Your task to perform on an android device: Go to notification settings Image 0: 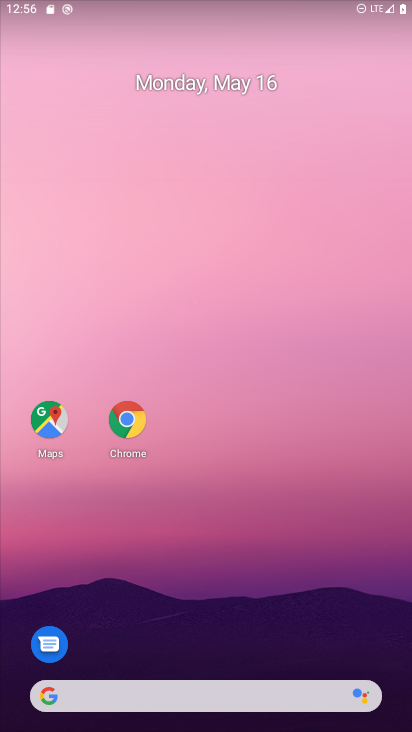
Step 0: drag from (178, 402) to (183, 93)
Your task to perform on an android device: Go to notification settings Image 1: 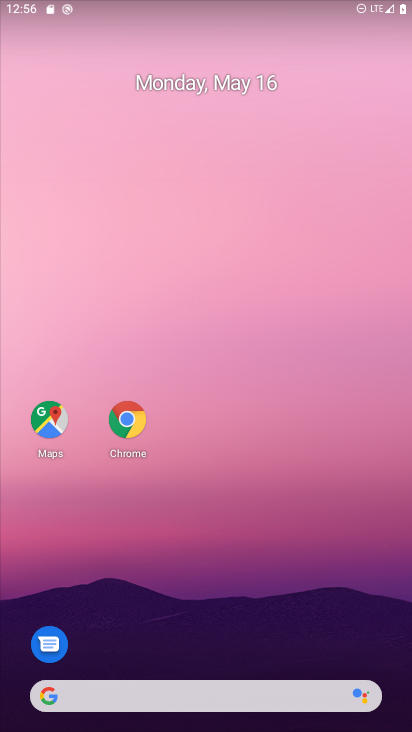
Step 1: drag from (176, 653) to (217, 116)
Your task to perform on an android device: Go to notification settings Image 2: 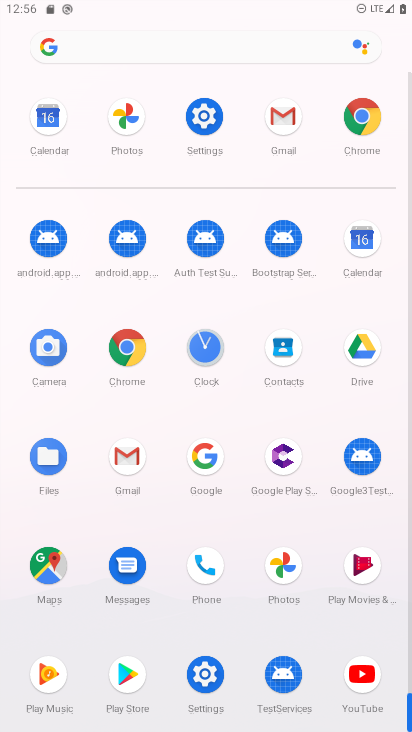
Step 2: click (191, 121)
Your task to perform on an android device: Go to notification settings Image 3: 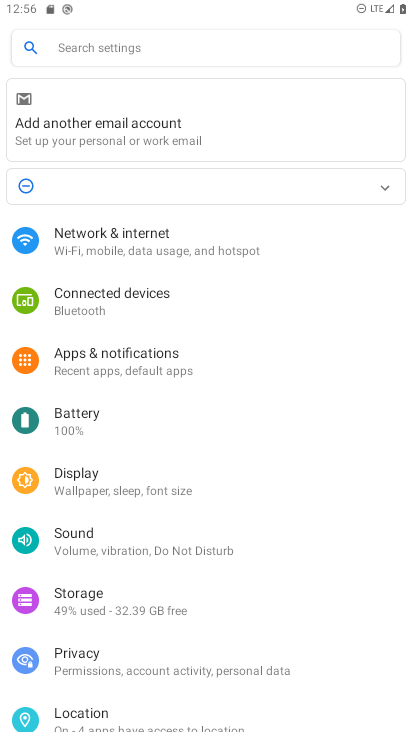
Step 3: click (140, 341)
Your task to perform on an android device: Go to notification settings Image 4: 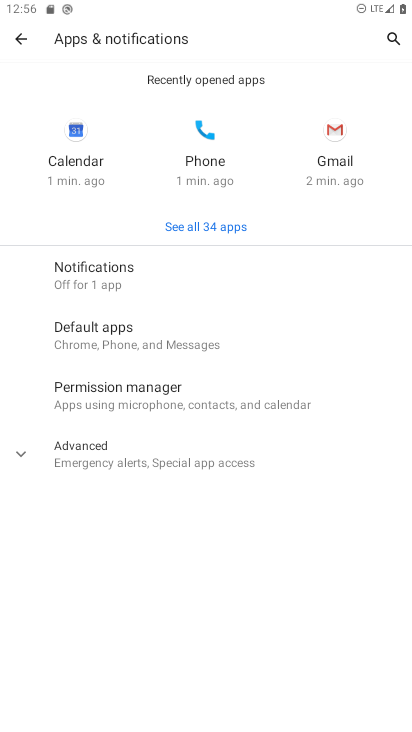
Step 4: click (117, 283)
Your task to perform on an android device: Go to notification settings Image 5: 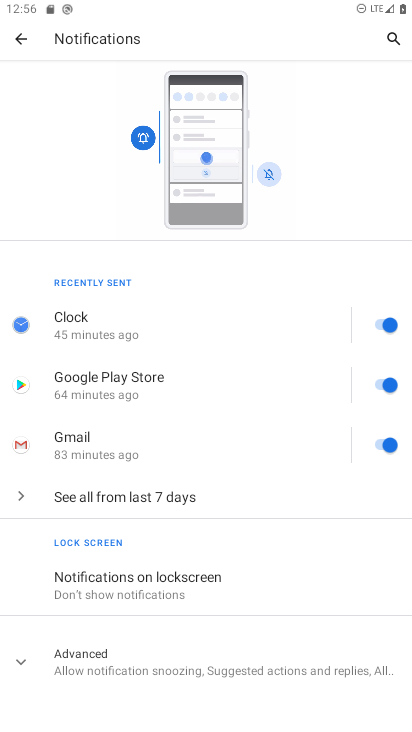
Step 5: drag from (193, 494) to (250, 287)
Your task to perform on an android device: Go to notification settings Image 6: 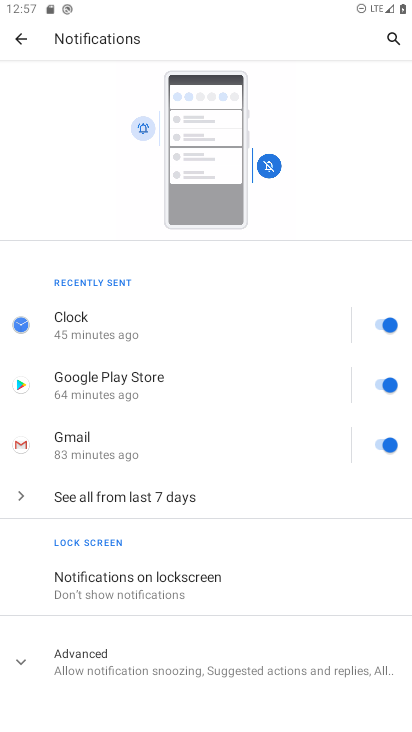
Step 6: click (143, 669)
Your task to perform on an android device: Go to notification settings Image 7: 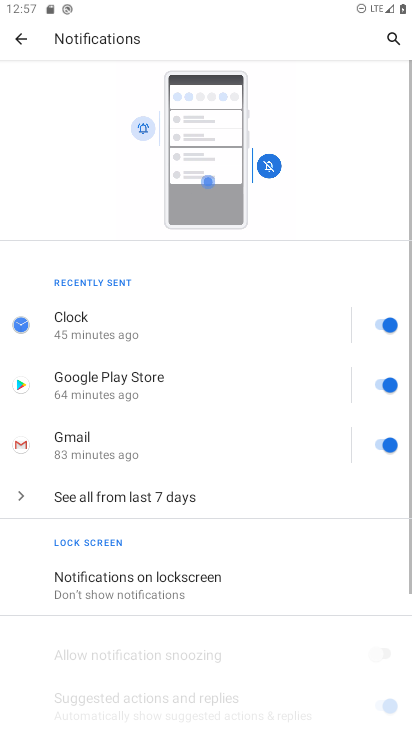
Step 7: task complete